Your task to perform on an android device: open app "LiveIn - Share Your Moment" (install if not already installed) and go to login screen Image 0: 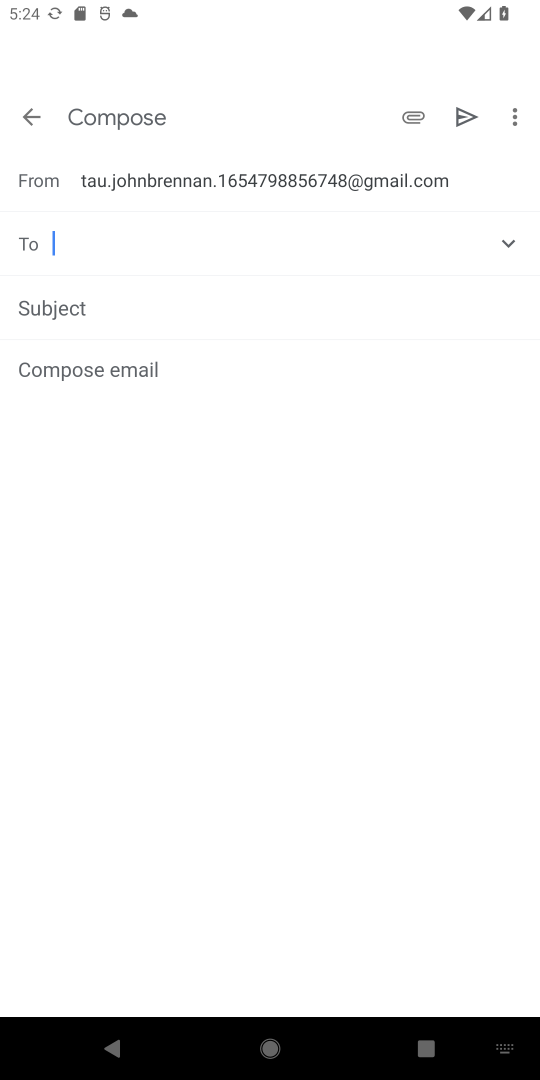
Step 0: press home button
Your task to perform on an android device: open app "LiveIn - Share Your Moment" (install if not already installed) and go to login screen Image 1: 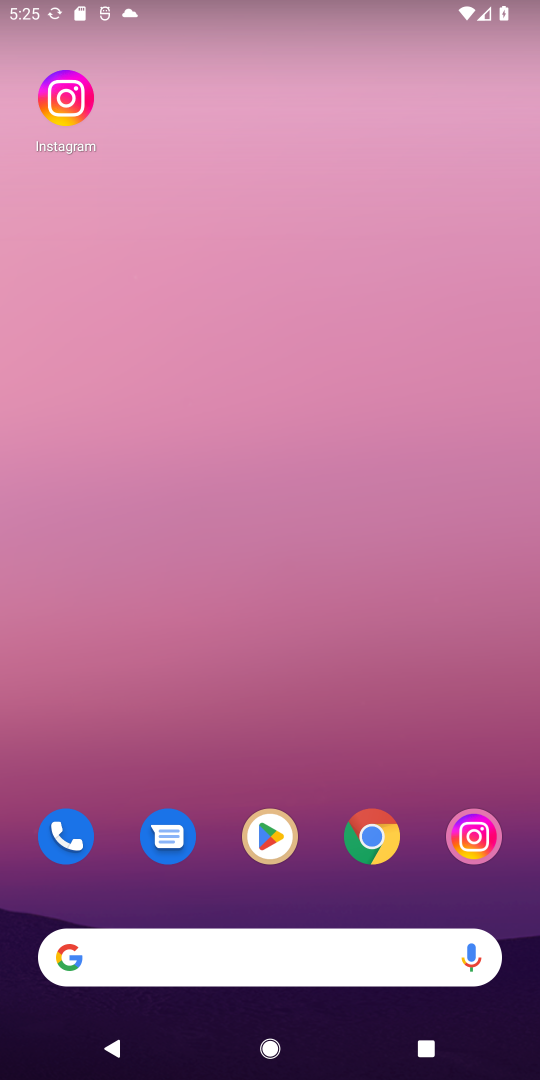
Step 1: click (272, 841)
Your task to perform on an android device: open app "LiveIn - Share Your Moment" (install if not already installed) and go to login screen Image 2: 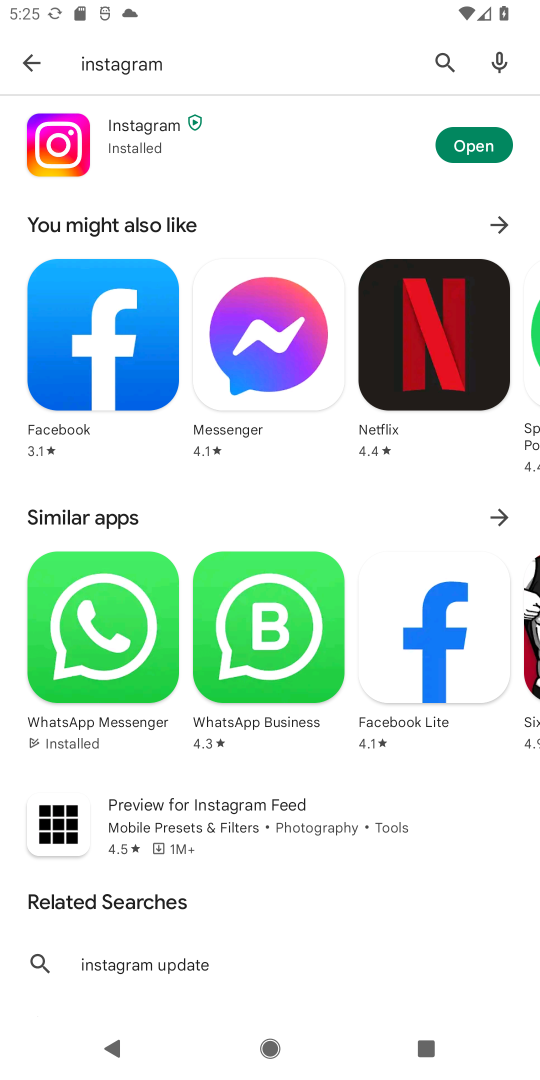
Step 2: click (439, 62)
Your task to perform on an android device: open app "LiveIn - Share Your Moment" (install if not already installed) and go to login screen Image 3: 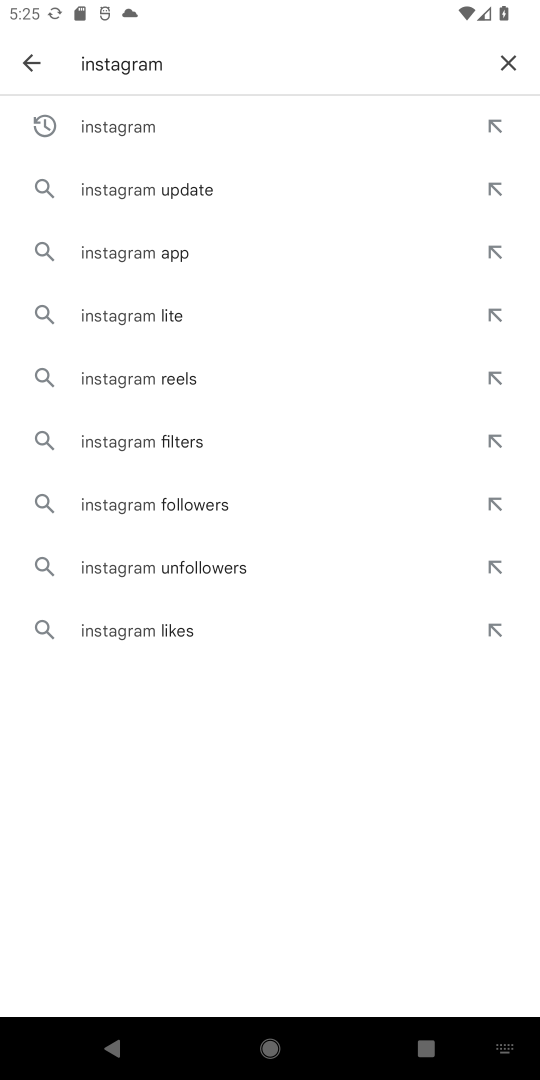
Step 3: click (500, 54)
Your task to perform on an android device: open app "LiveIn - Share Your Moment" (install if not already installed) and go to login screen Image 4: 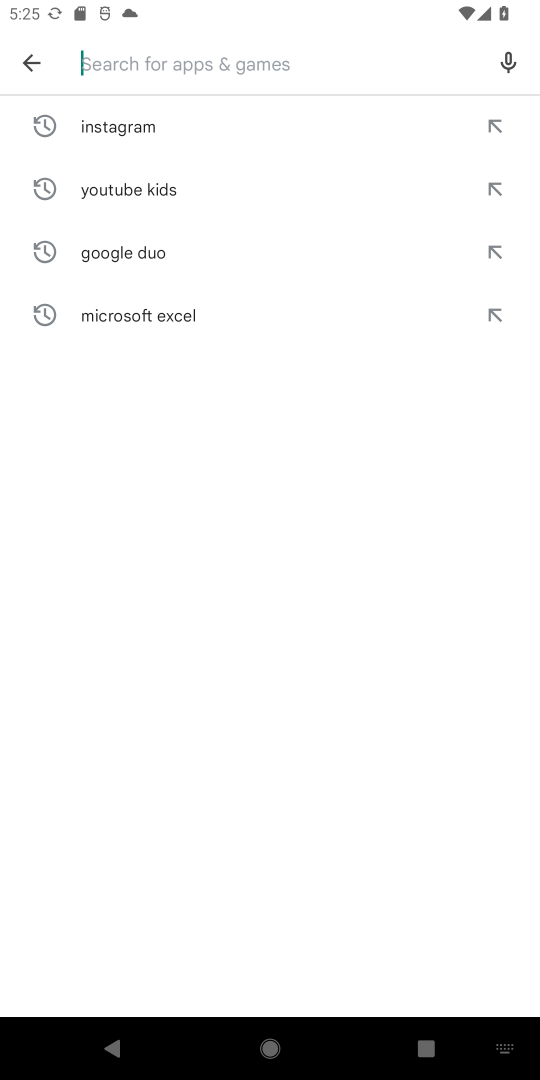
Step 4: type "LiveIn - Share Your Moment"
Your task to perform on an android device: open app "LiveIn - Share Your Moment" (install if not already installed) and go to login screen Image 5: 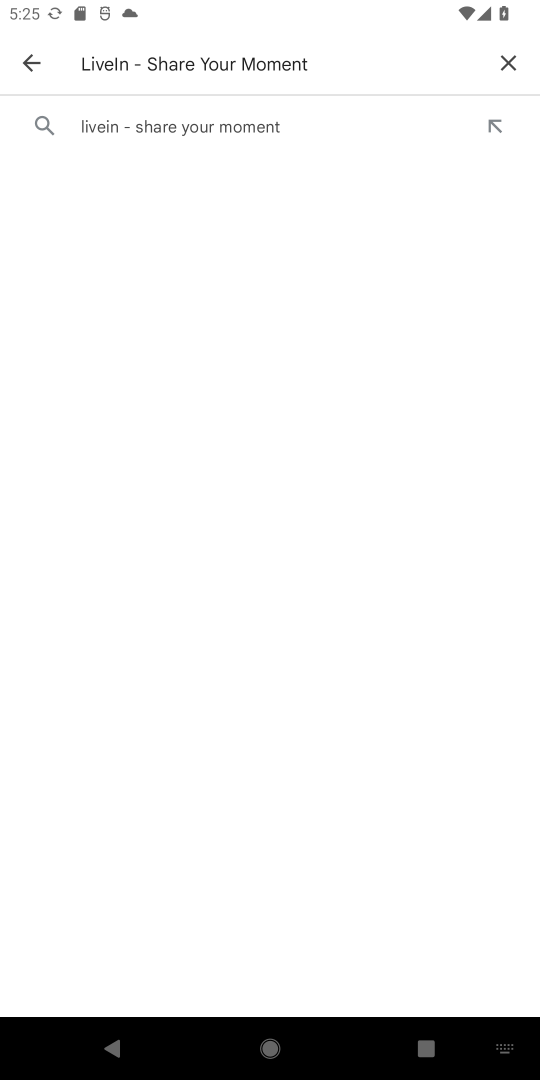
Step 5: click (166, 126)
Your task to perform on an android device: open app "LiveIn - Share Your Moment" (install if not already installed) and go to login screen Image 6: 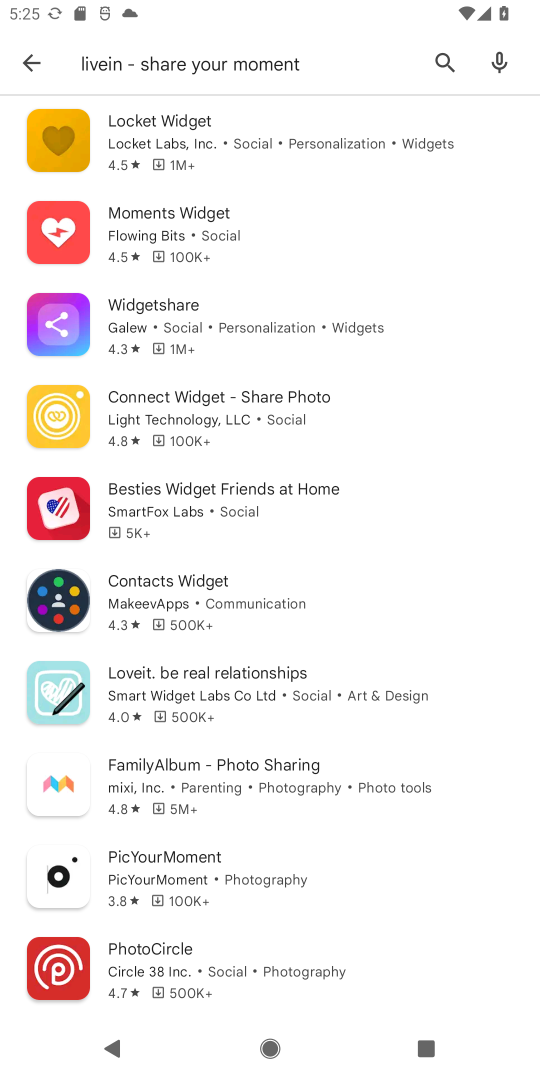
Step 6: task complete